Your task to perform on an android device: Open maps Image 0: 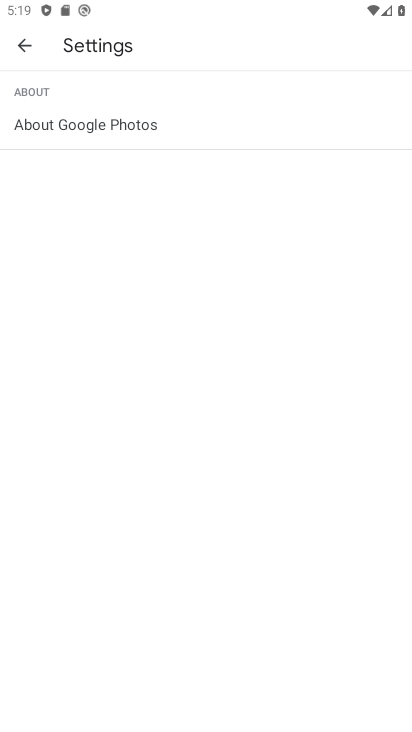
Step 0: press home button
Your task to perform on an android device: Open maps Image 1: 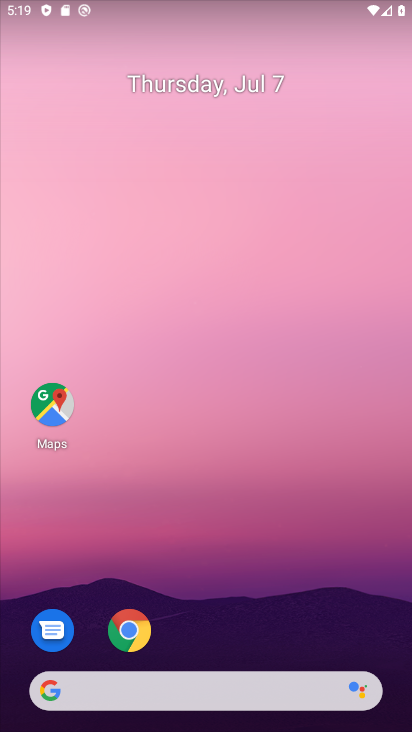
Step 1: drag from (150, 486) to (152, 201)
Your task to perform on an android device: Open maps Image 2: 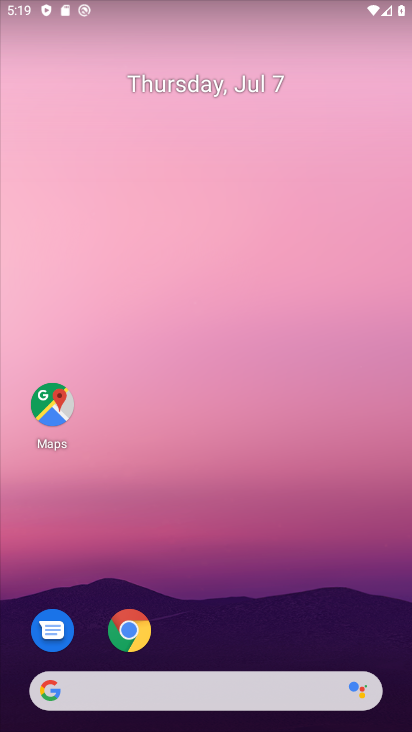
Step 2: click (54, 407)
Your task to perform on an android device: Open maps Image 3: 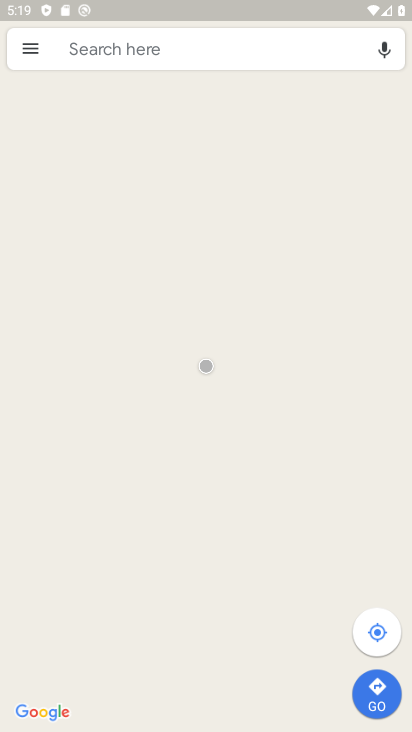
Step 3: task complete